Your task to perform on an android device: What is the recent news? Image 0: 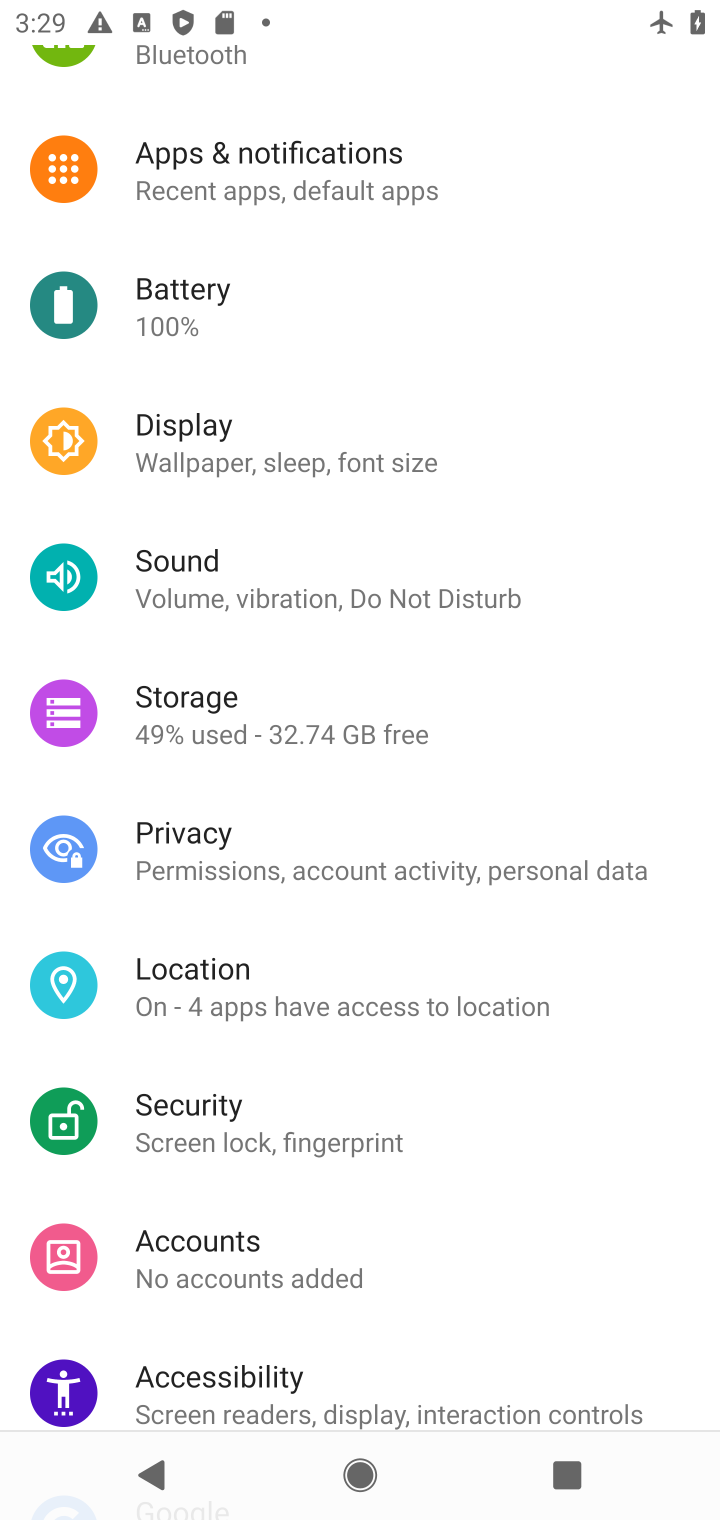
Step 0: press home button
Your task to perform on an android device: What is the recent news? Image 1: 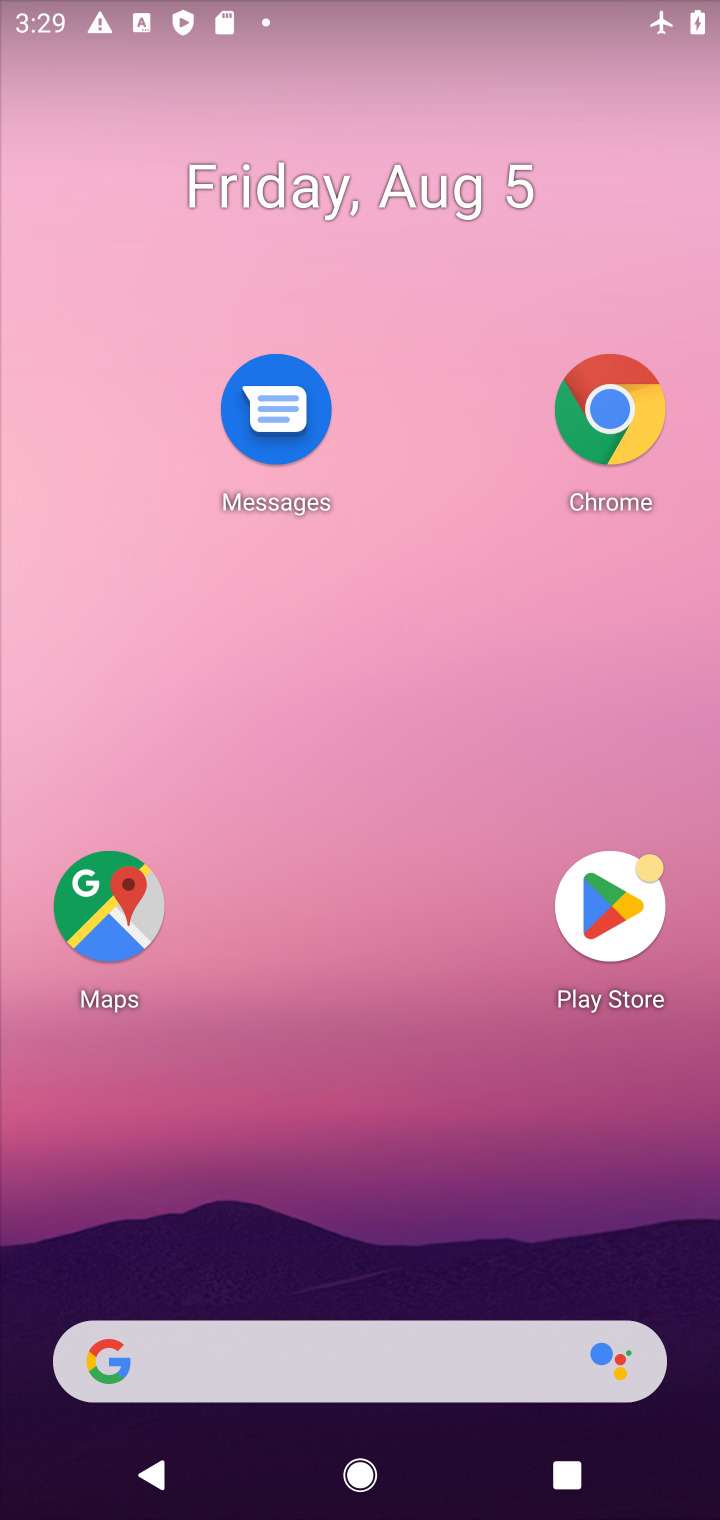
Step 1: drag from (353, 1047) to (367, 235)
Your task to perform on an android device: What is the recent news? Image 2: 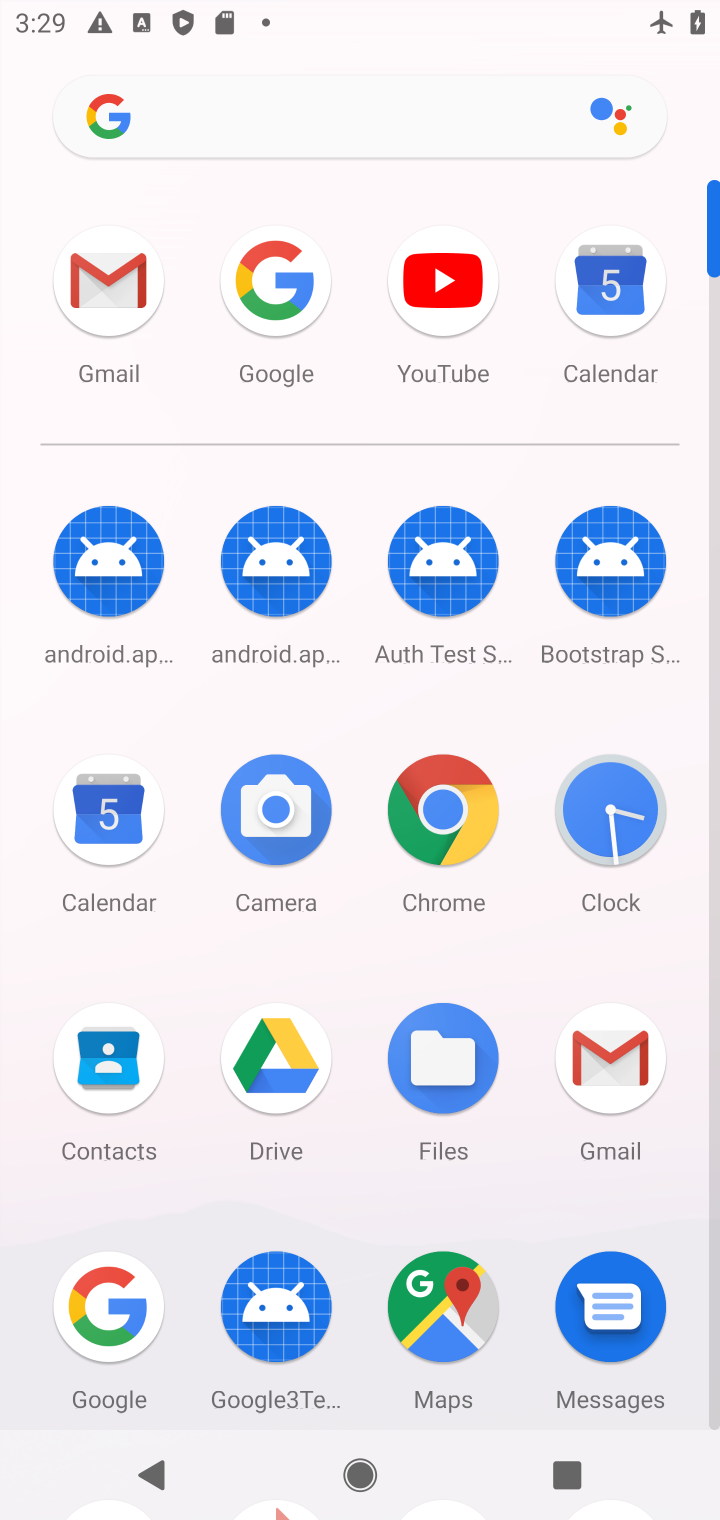
Step 2: click (274, 302)
Your task to perform on an android device: What is the recent news? Image 3: 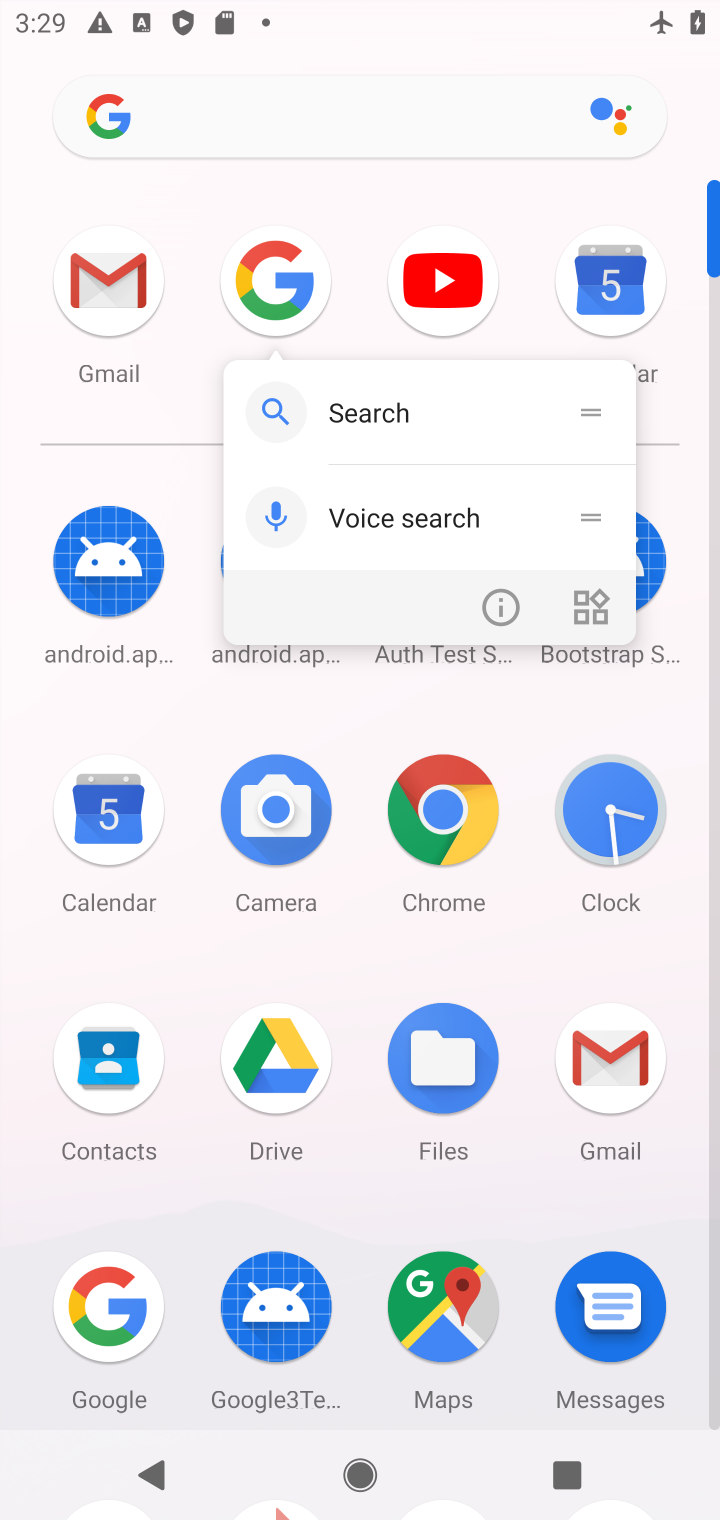
Step 3: click (274, 257)
Your task to perform on an android device: What is the recent news? Image 4: 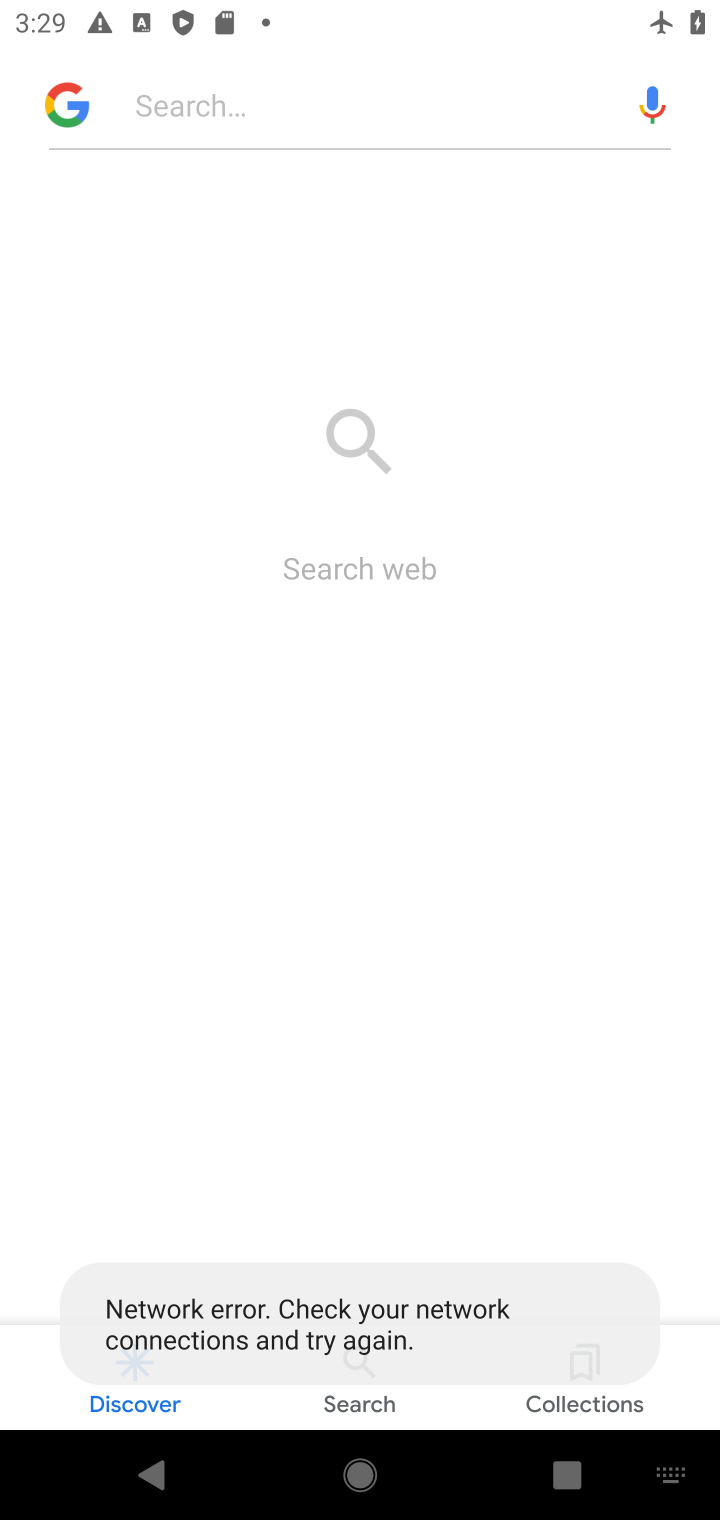
Step 4: click (299, 123)
Your task to perform on an android device: What is the recent news? Image 5: 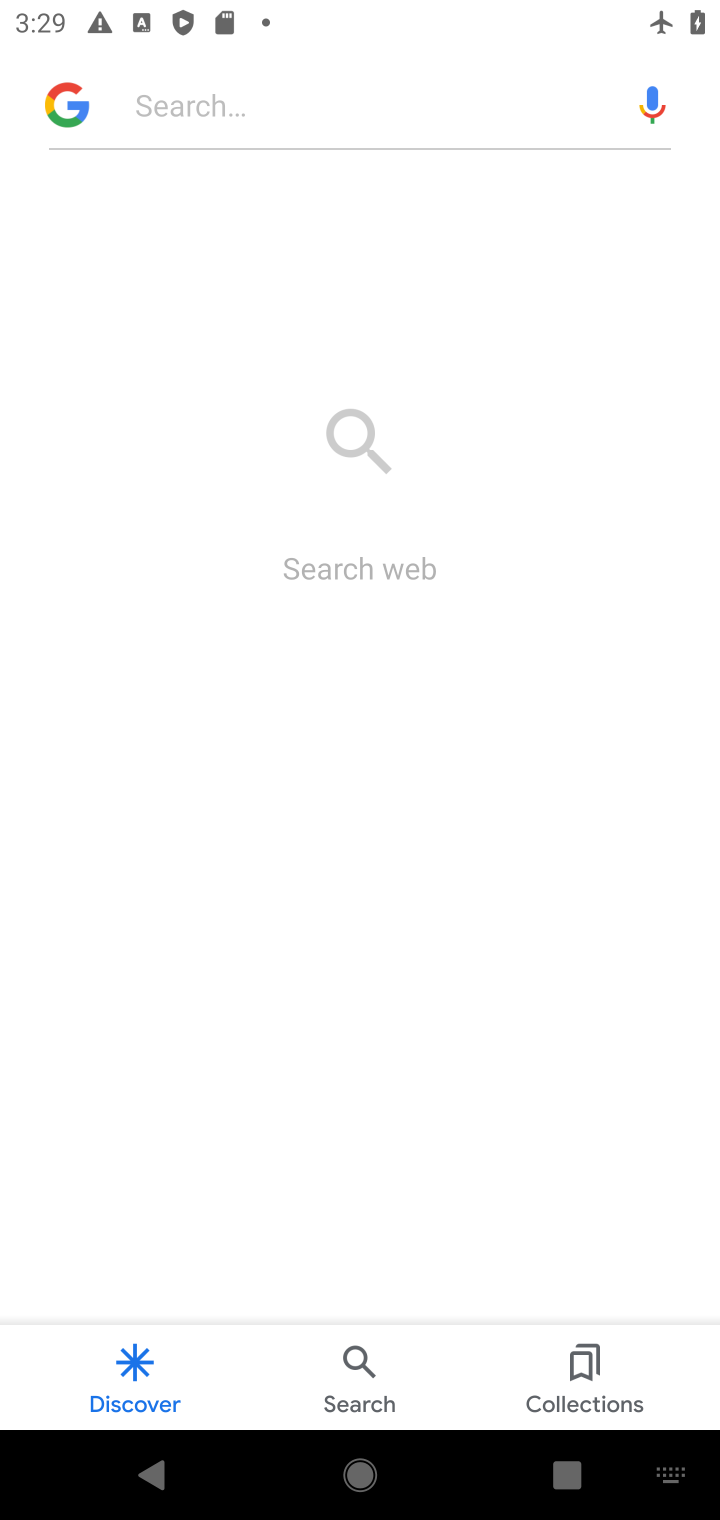
Step 5: type "news"
Your task to perform on an android device: What is the recent news? Image 6: 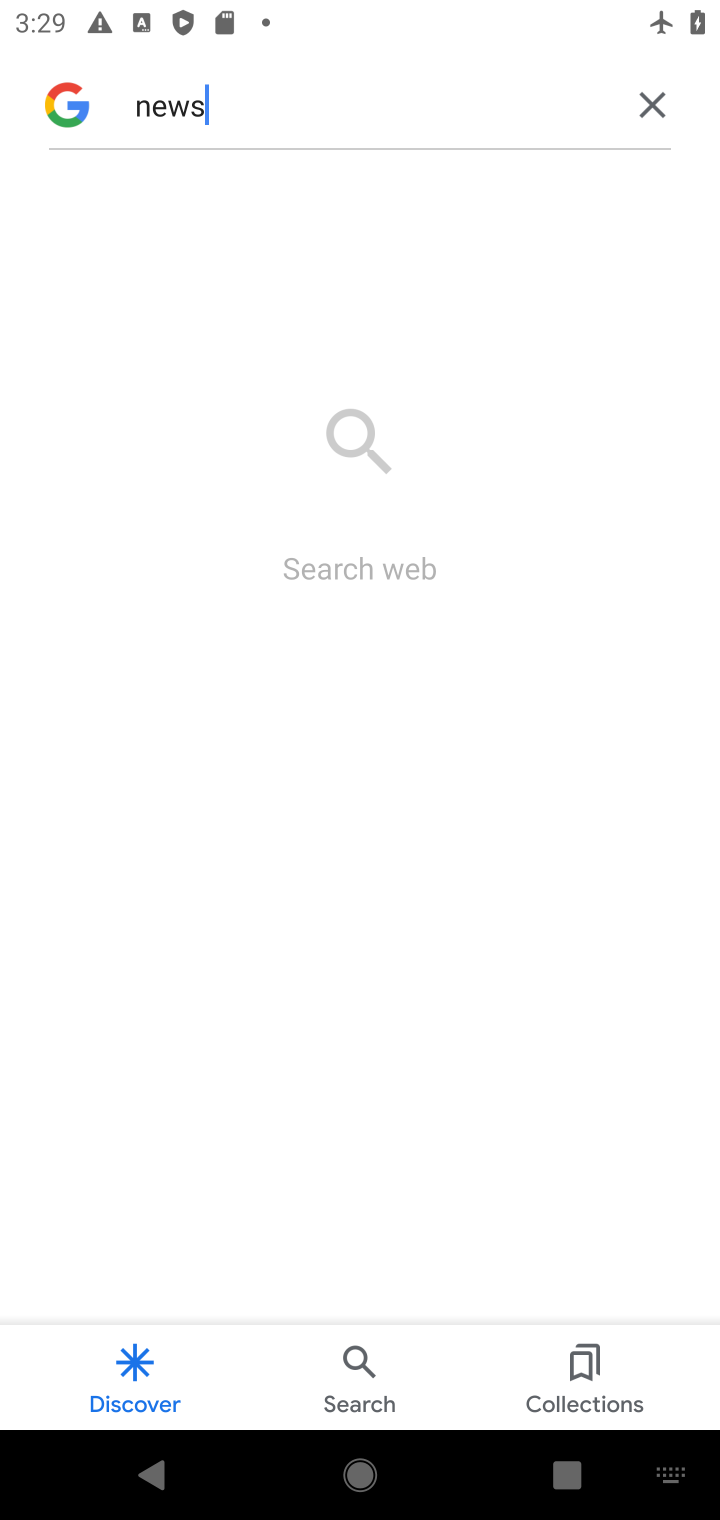
Step 6: type ""
Your task to perform on an android device: What is the recent news? Image 7: 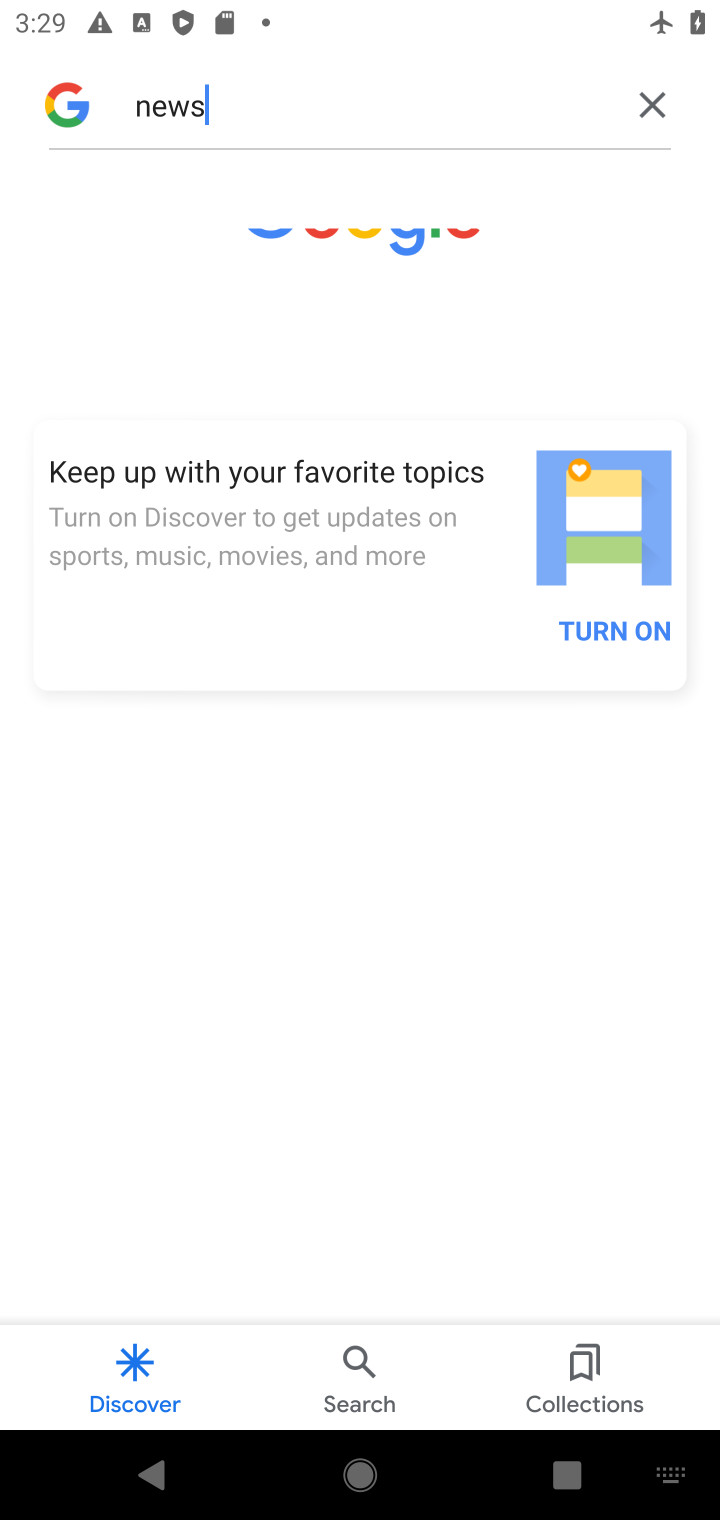
Step 7: task complete